Your task to perform on an android device: turn off priority inbox in the gmail app Image 0: 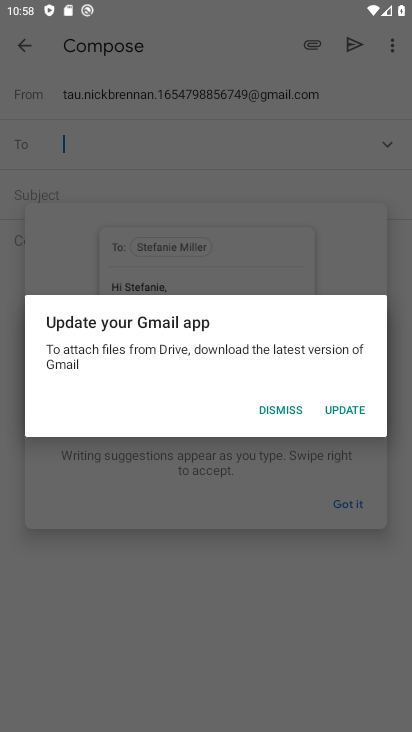
Step 0: press home button
Your task to perform on an android device: turn off priority inbox in the gmail app Image 1: 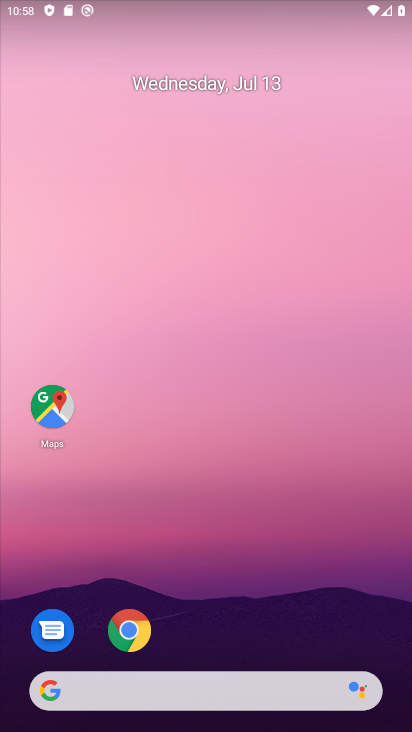
Step 1: drag from (224, 656) to (346, 10)
Your task to perform on an android device: turn off priority inbox in the gmail app Image 2: 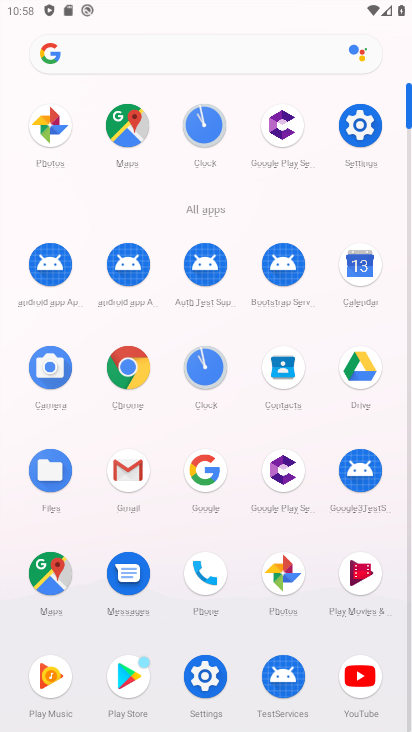
Step 2: click (125, 488)
Your task to perform on an android device: turn off priority inbox in the gmail app Image 3: 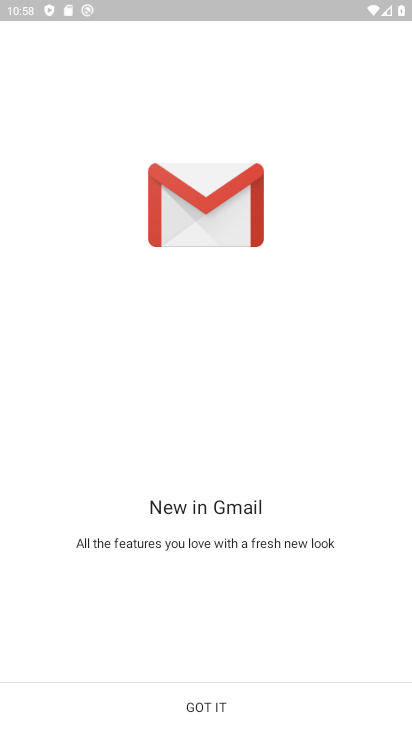
Step 3: click (217, 693)
Your task to perform on an android device: turn off priority inbox in the gmail app Image 4: 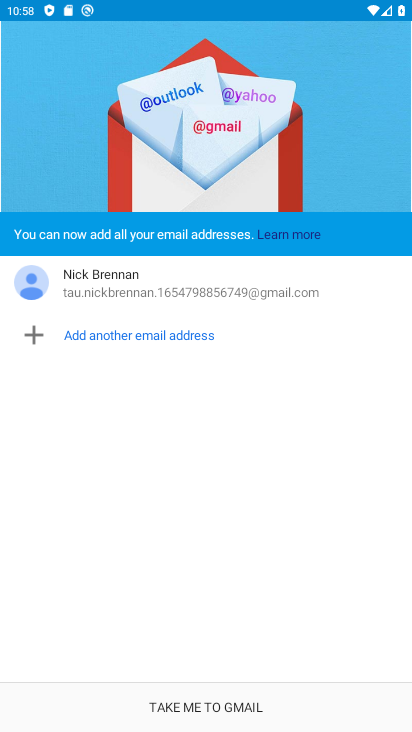
Step 4: click (239, 694)
Your task to perform on an android device: turn off priority inbox in the gmail app Image 5: 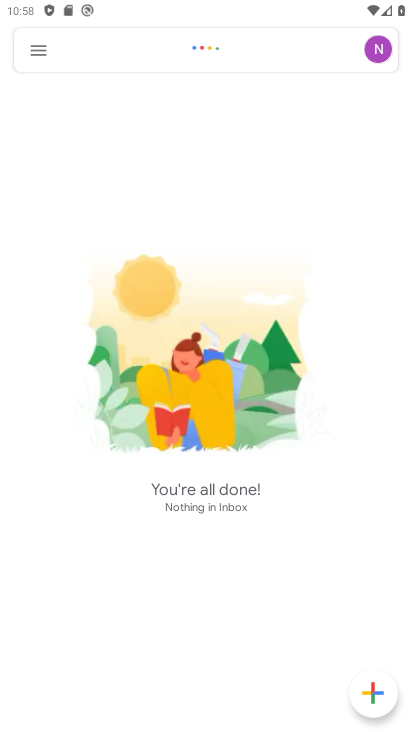
Step 5: click (44, 72)
Your task to perform on an android device: turn off priority inbox in the gmail app Image 6: 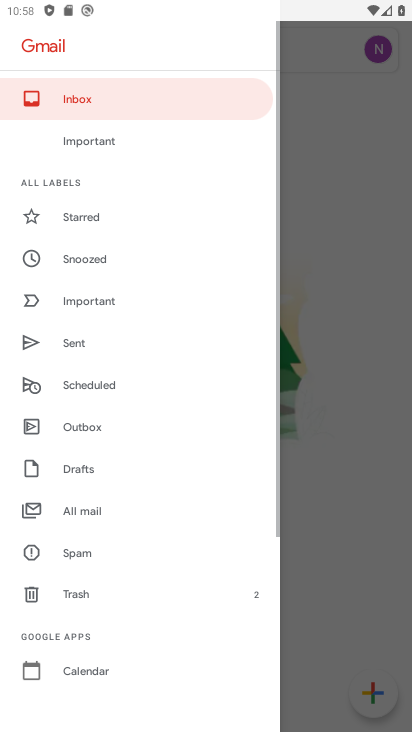
Step 6: drag from (109, 654) to (201, 299)
Your task to perform on an android device: turn off priority inbox in the gmail app Image 7: 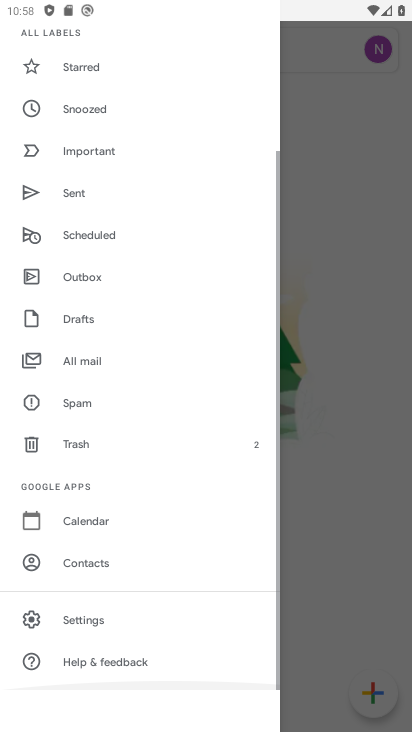
Step 7: click (134, 613)
Your task to perform on an android device: turn off priority inbox in the gmail app Image 8: 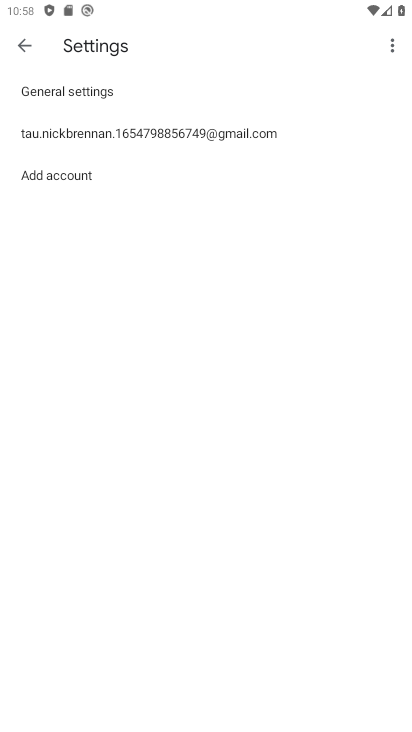
Step 8: click (280, 128)
Your task to perform on an android device: turn off priority inbox in the gmail app Image 9: 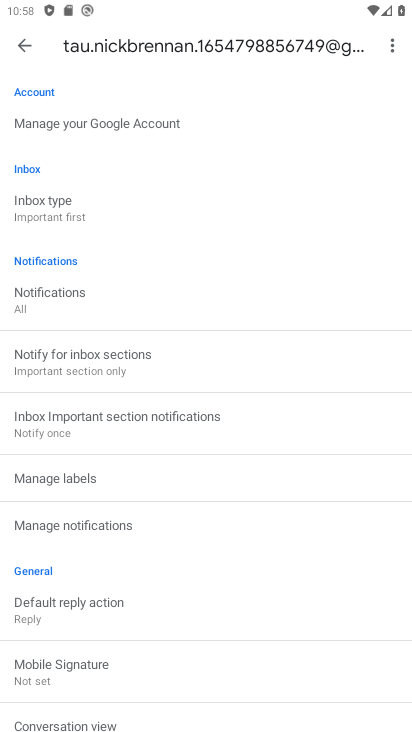
Step 9: task complete